Your task to perform on an android device: Show me popular games on the Play Store Image 0: 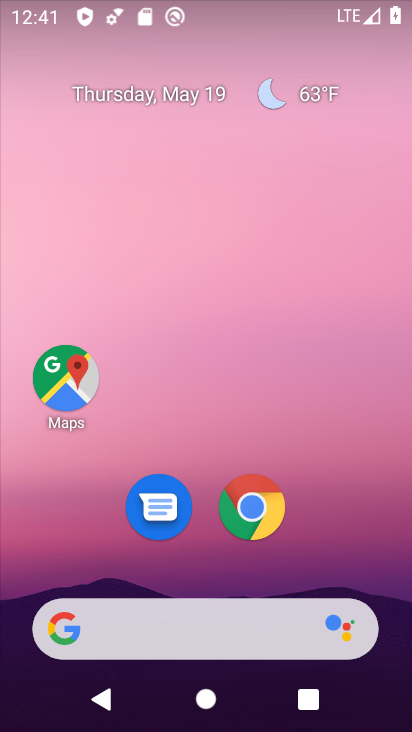
Step 0: drag from (227, 590) to (226, 281)
Your task to perform on an android device: Show me popular games on the Play Store Image 1: 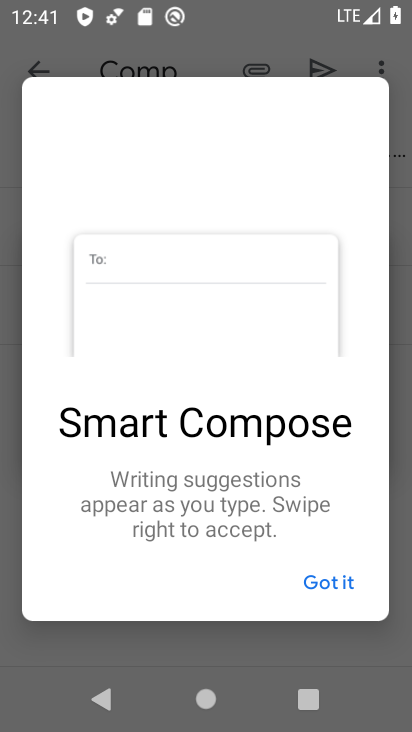
Step 1: press home button
Your task to perform on an android device: Show me popular games on the Play Store Image 2: 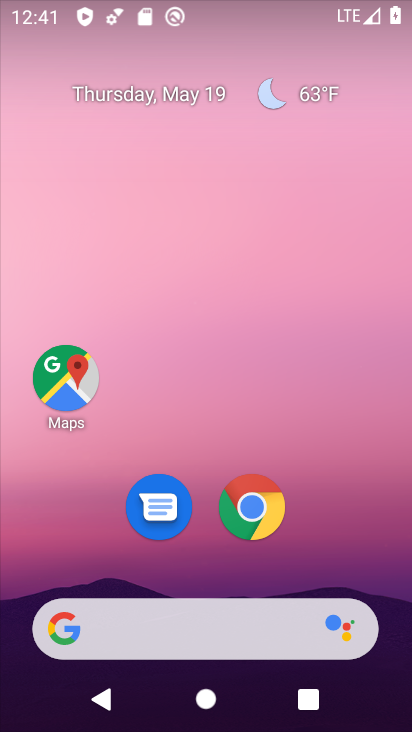
Step 2: drag from (144, 608) to (205, 264)
Your task to perform on an android device: Show me popular games on the Play Store Image 3: 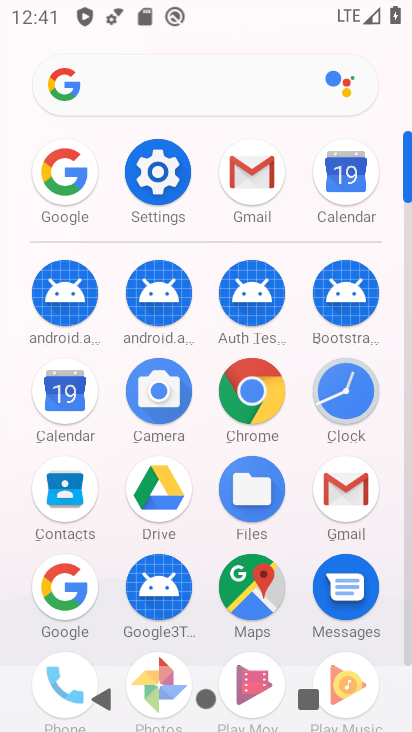
Step 3: drag from (198, 627) to (245, 270)
Your task to perform on an android device: Show me popular games on the Play Store Image 4: 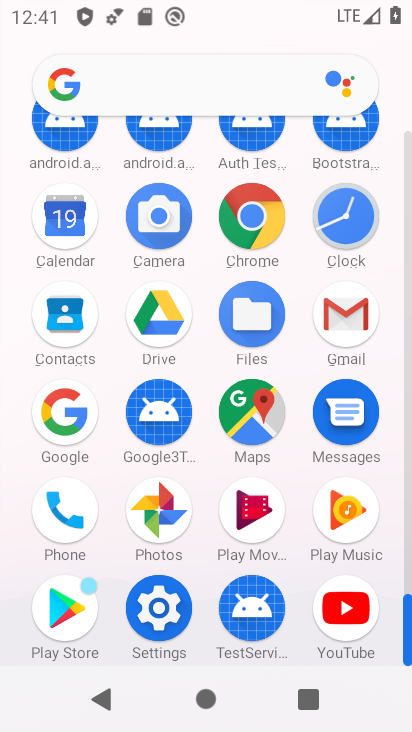
Step 4: click (68, 615)
Your task to perform on an android device: Show me popular games on the Play Store Image 5: 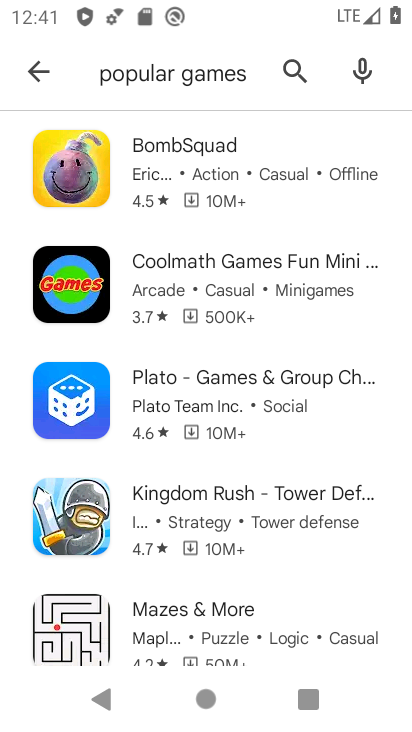
Step 5: task complete